Your task to perform on an android device: turn on showing notifications on the lock screen Image 0: 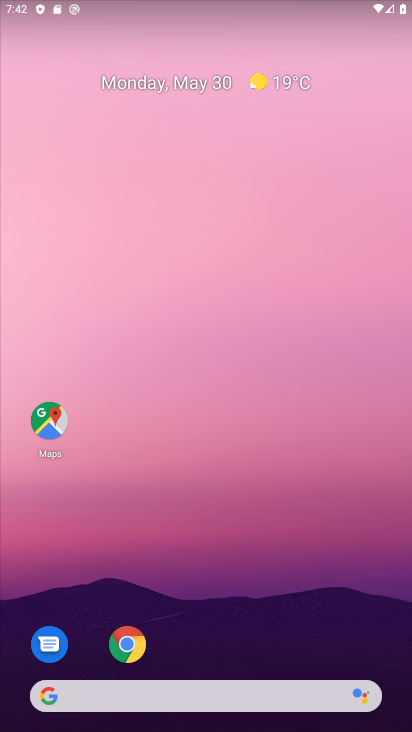
Step 0: drag from (252, 607) to (247, 89)
Your task to perform on an android device: turn on showing notifications on the lock screen Image 1: 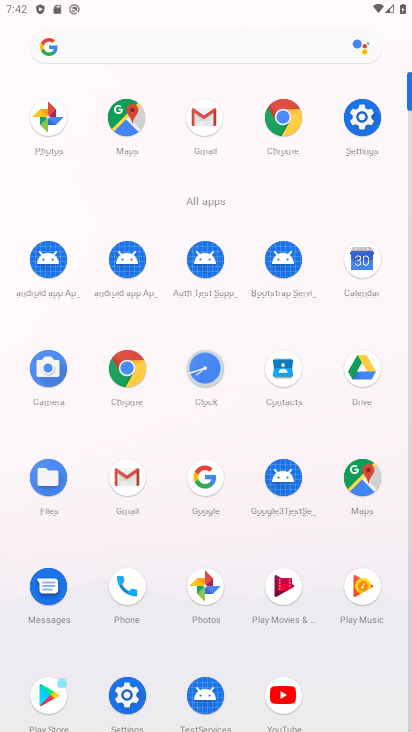
Step 1: click (369, 124)
Your task to perform on an android device: turn on showing notifications on the lock screen Image 2: 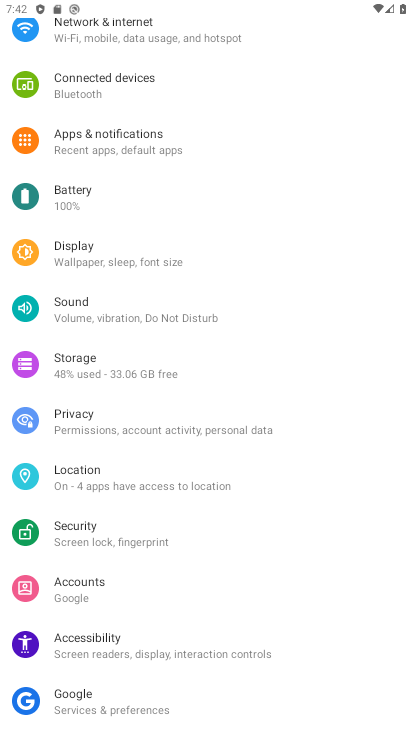
Step 2: click (91, 140)
Your task to perform on an android device: turn on showing notifications on the lock screen Image 3: 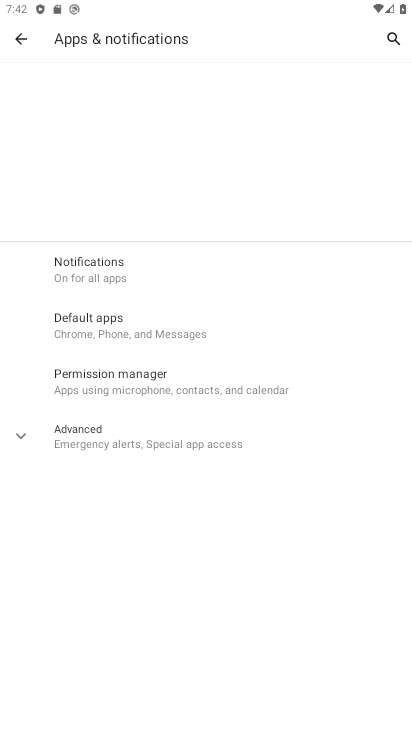
Step 3: click (101, 277)
Your task to perform on an android device: turn on showing notifications on the lock screen Image 4: 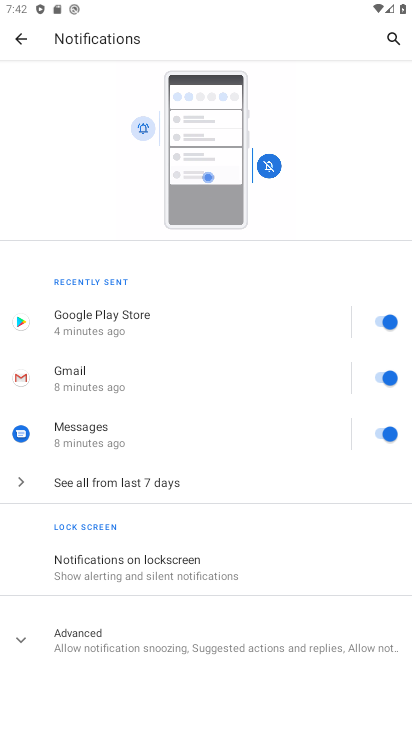
Step 4: click (126, 573)
Your task to perform on an android device: turn on showing notifications on the lock screen Image 5: 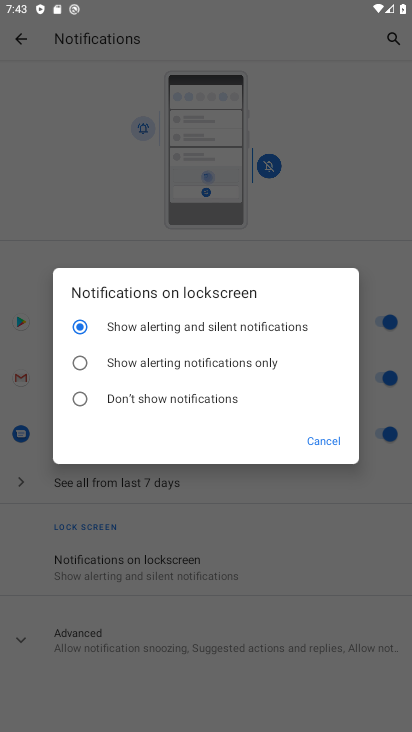
Step 5: task complete